Your task to perform on an android device: turn on sleep mode Image 0: 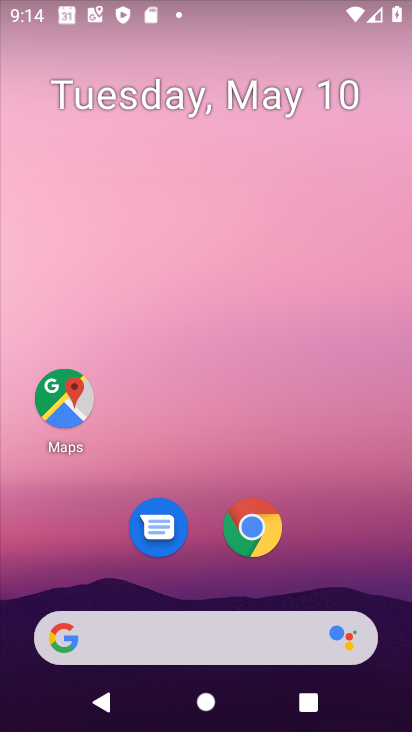
Step 0: drag from (316, 576) to (334, 292)
Your task to perform on an android device: turn on sleep mode Image 1: 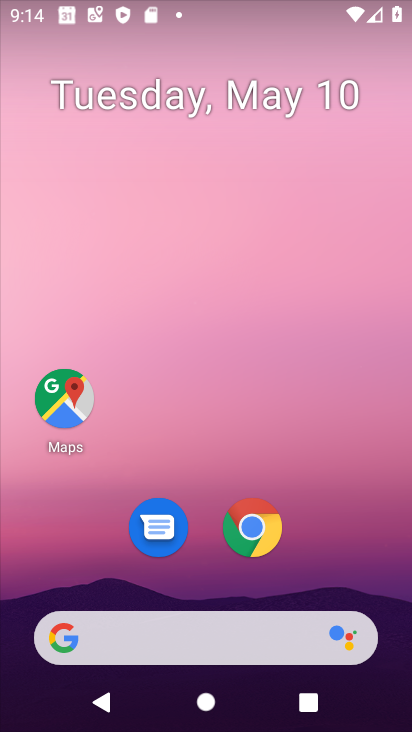
Step 1: drag from (278, 585) to (265, 184)
Your task to perform on an android device: turn on sleep mode Image 2: 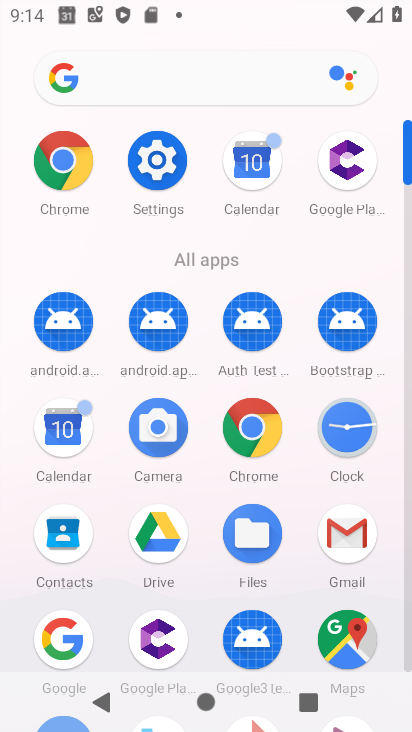
Step 2: click (153, 197)
Your task to perform on an android device: turn on sleep mode Image 3: 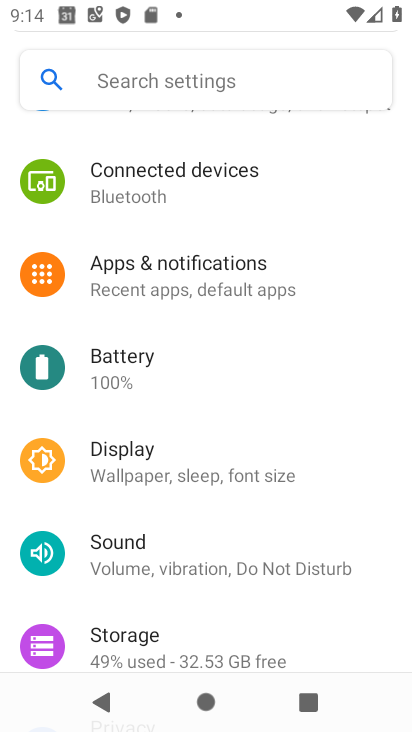
Step 3: task complete